Your task to perform on an android device: see creations saved in the google photos Image 0: 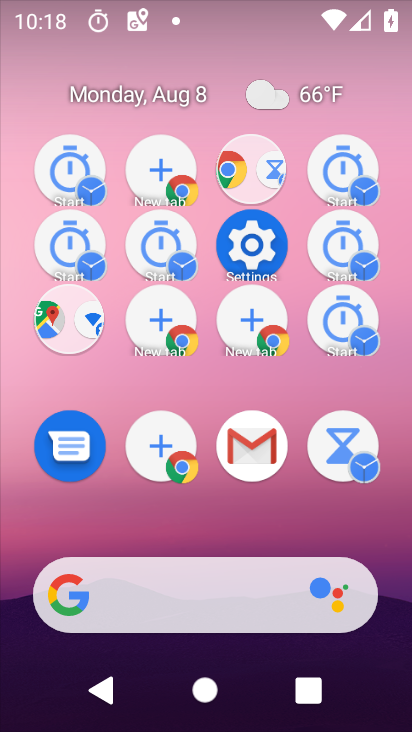
Step 0: drag from (247, 692) to (220, 202)
Your task to perform on an android device: see creations saved in the google photos Image 1: 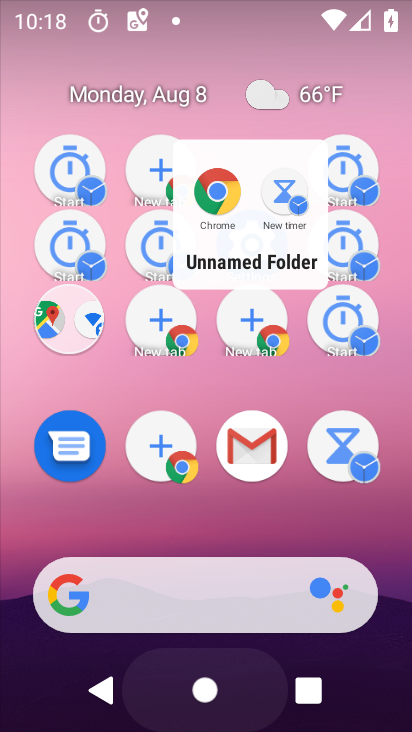
Step 1: drag from (274, 436) to (334, 130)
Your task to perform on an android device: see creations saved in the google photos Image 2: 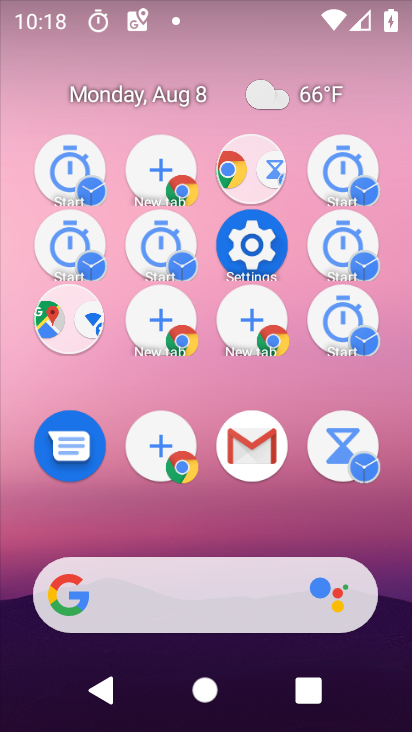
Step 2: drag from (260, 608) to (263, 298)
Your task to perform on an android device: see creations saved in the google photos Image 3: 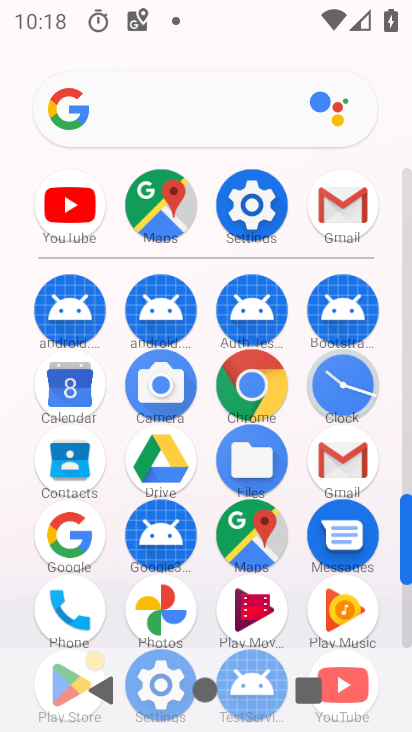
Step 3: click (161, 593)
Your task to perform on an android device: see creations saved in the google photos Image 4: 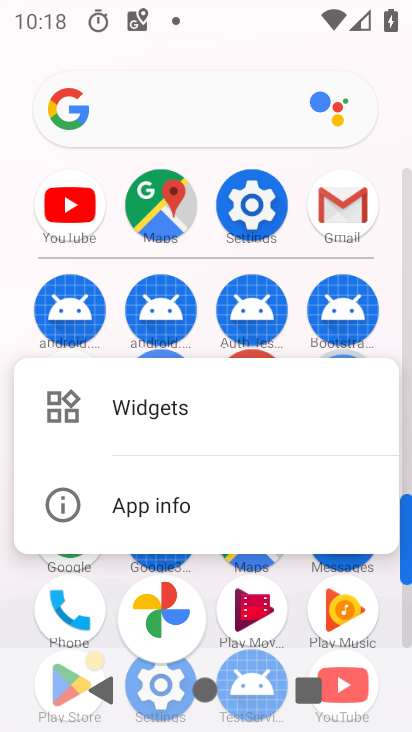
Step 4: click (162, 602)
Your task to perform on an android device: see creations saved in the google photos Image 5: 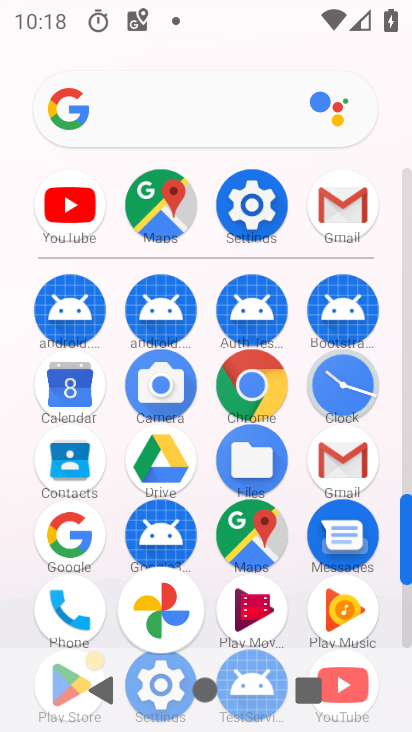
Step 5: click (161, 601)
Your task to perform on an android device: see creations saved in the google photos Image 6: 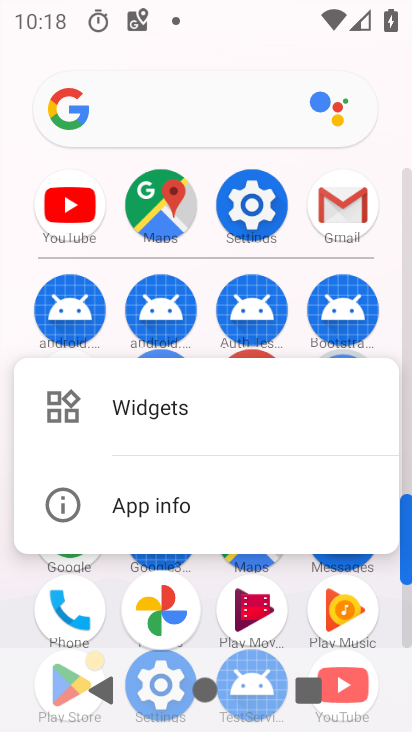
Step 6: click (160, 600)
Your task to perform on an android device: see creations saved in the google photos Image 7: 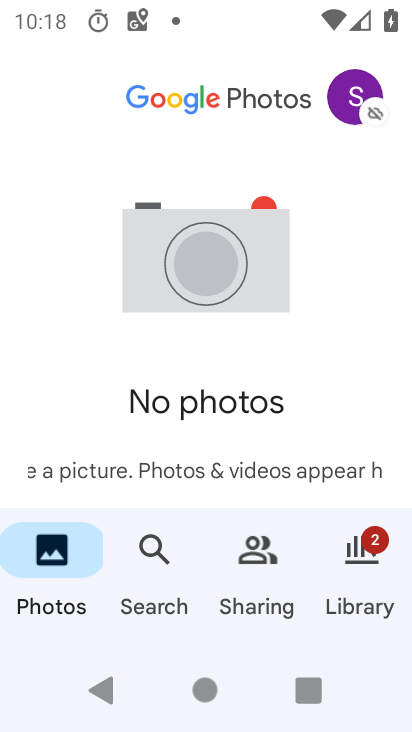
Step 7: task complete